Your task to perform on an android device: What's the news in Bangladesh? Image 0: 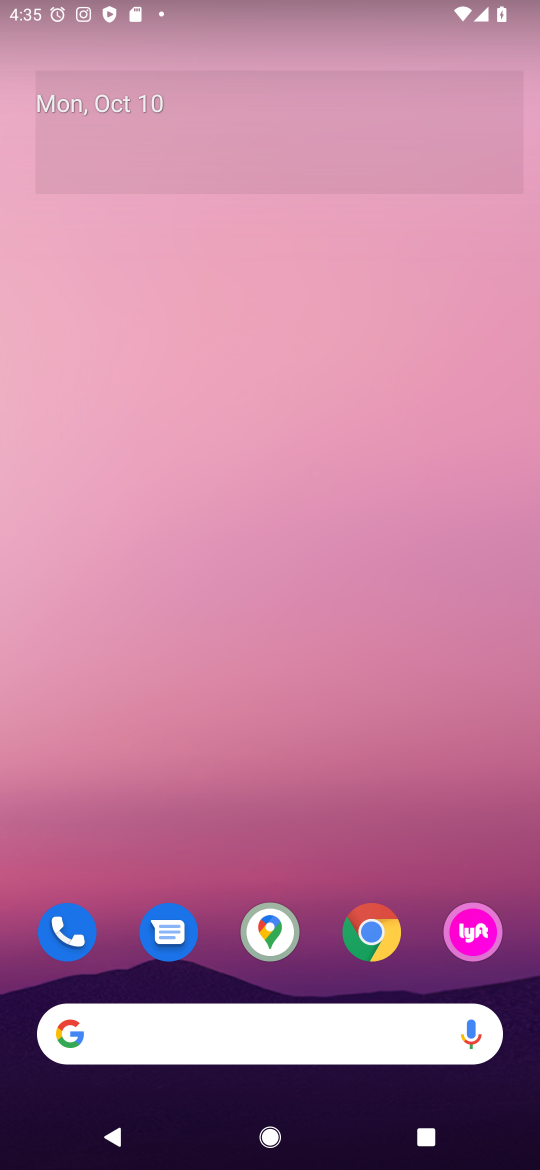
Step 0: press home button
Your task to perform on an android device: What's the news in Bangladesh? Image 1: 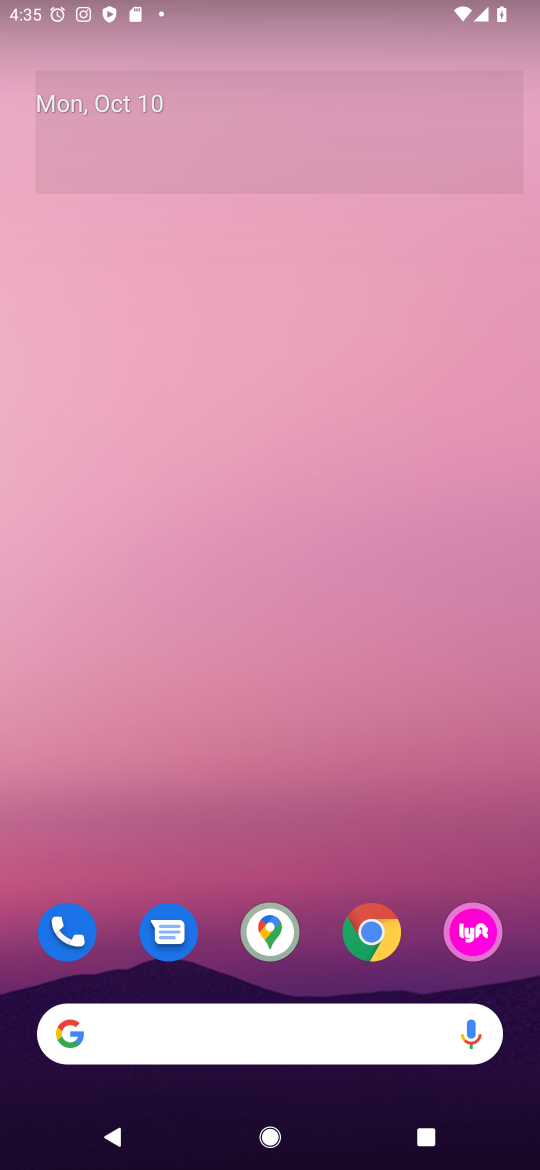
Step 1: click (361, 1033)
Your task to perform on an android device: What's the news in Bangladesh? Image 2: 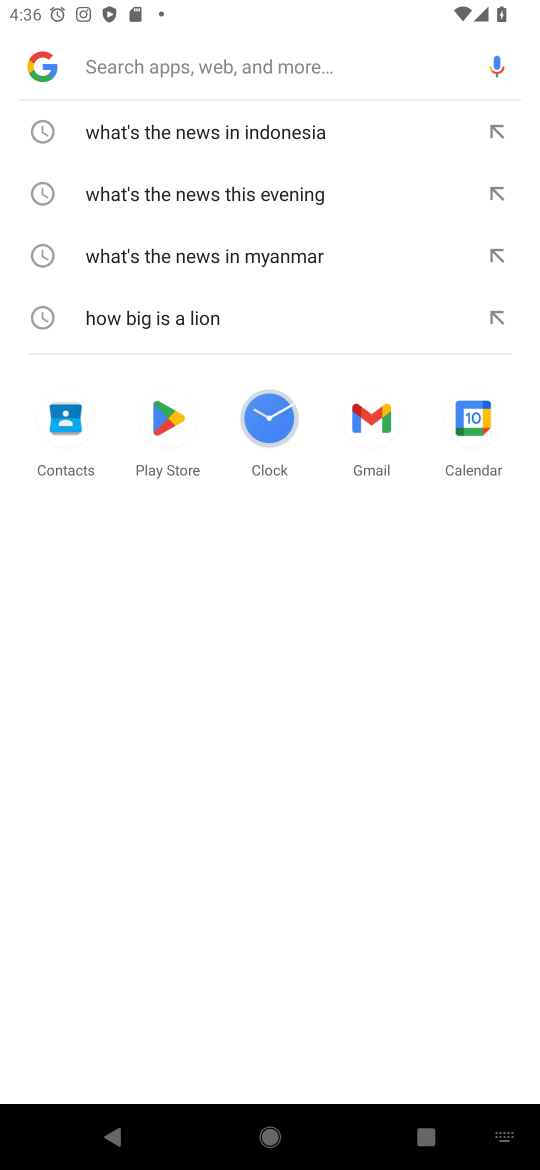
Step 2: type "What's the news in Bangladesh"
Your task to perform on an android device: What's the news in Bangladesh? Image 3: 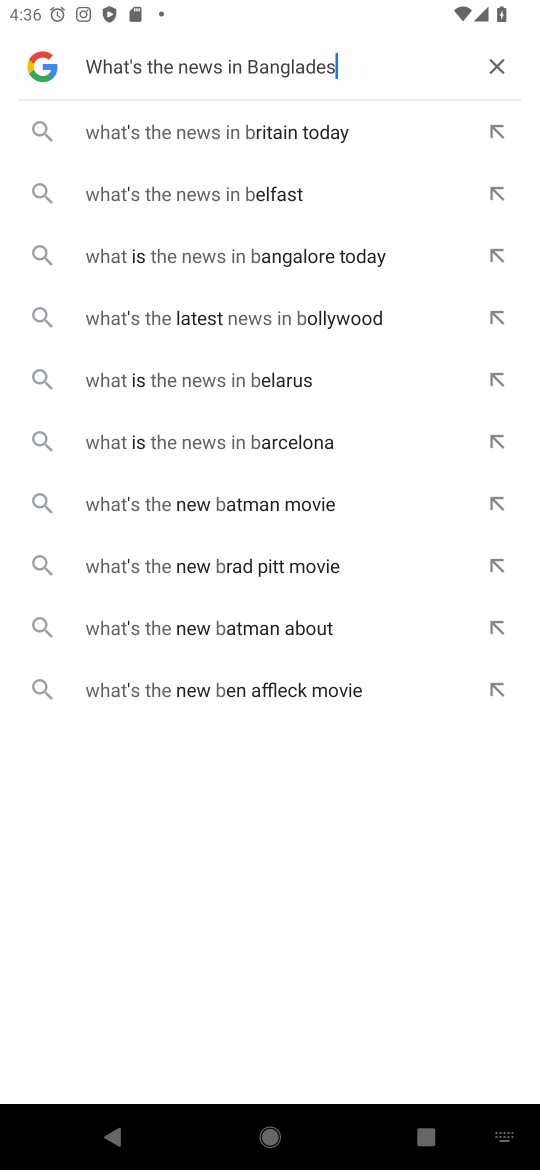
Step 3: press enter
Your task to perform on an android device: What's the news in Bangladesh? Image 4: 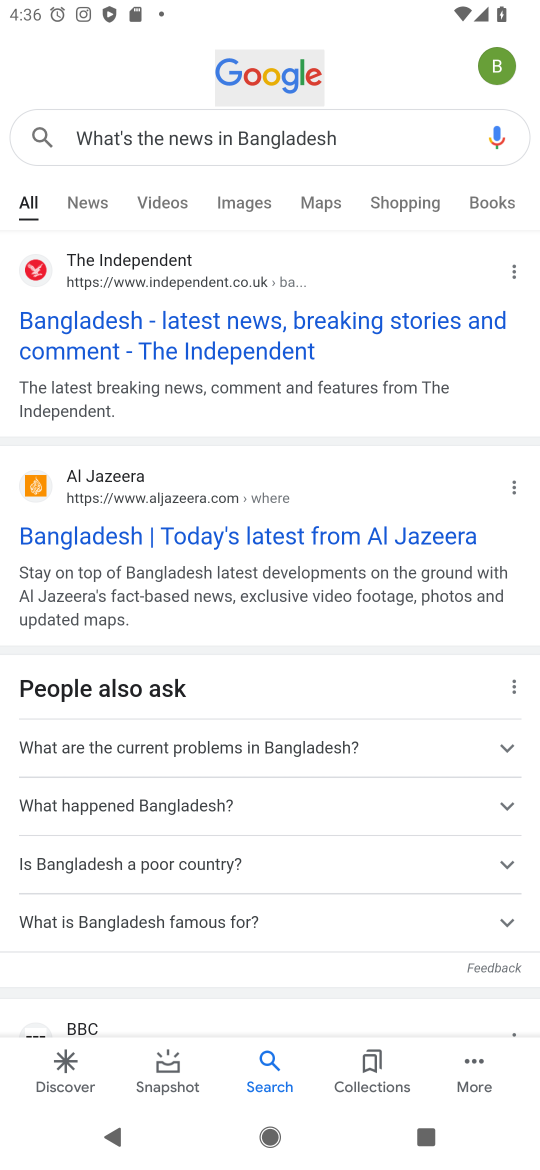
Step 4: click (268, 320)
Your task to perform on an android device: What's the news in Bangladesh? Image 5: 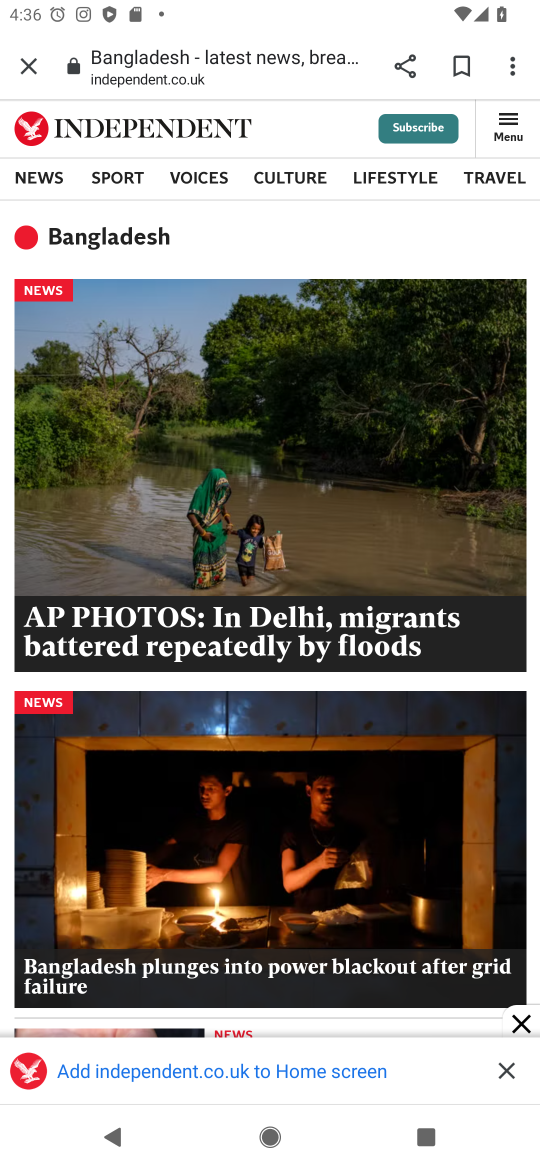
Step 5: task complete